Your task to perform on an android device: Open CNN.com Image 0: 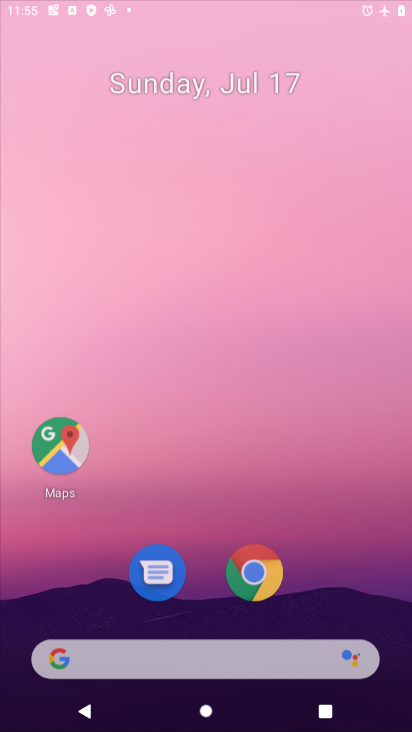
Step 0: press home button
Your task to perform on an android device: Open CNN.com Image 1: 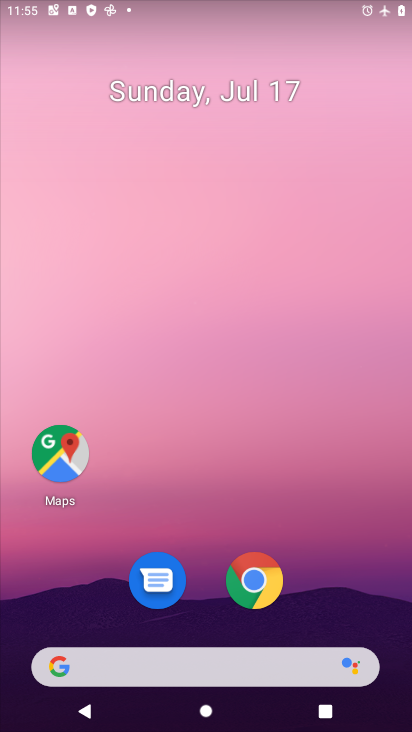
Step 1: drag from (216, 719) to (251, 198)
Your task to perform on an android device: Open CNN.com Image 2: 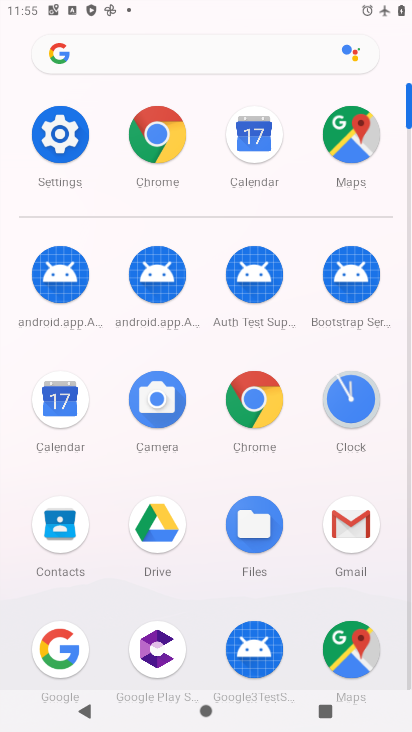
Step 2: click (171, 159)
Your task to perform on an android device: Open CNN.com Image 3: 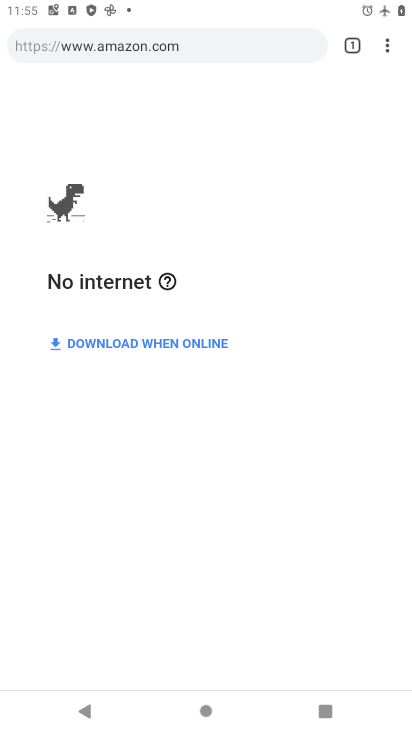
Step 3: task complete